Your task to perform on an android device: Open Google Chrome and open the bookmarks view Image 0: 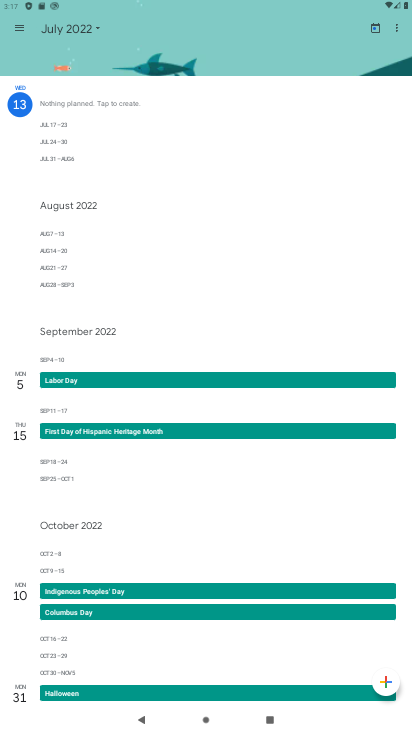
Step 0: press home button
Your task to perform on an android device: Open Google Chrome and open the bookmarks view Image 1: 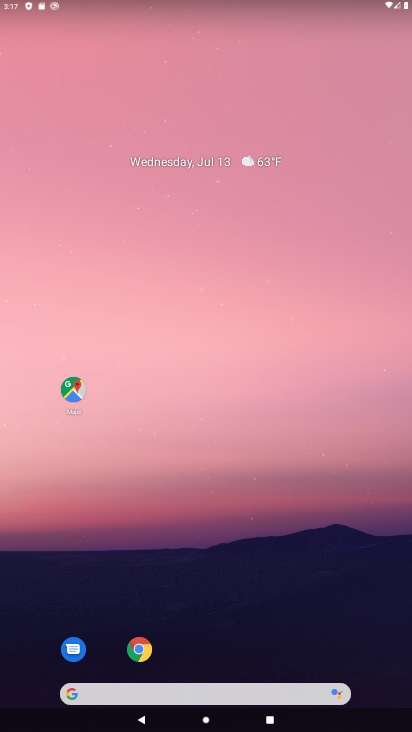
Step 1: click (143, 647)
Your task to perform on an android device: Open Google Chrome and open the bookmarks view Image 2: 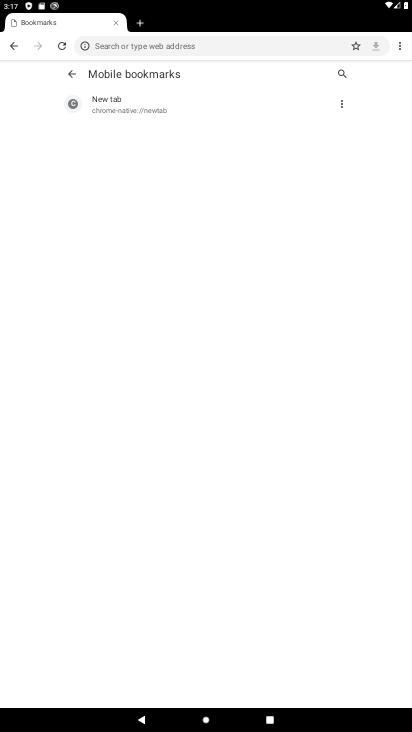
Step 2: click (397, 45)
Your task to perform on an android device: Open Google Chrome and open the bookmarks view Image 3: 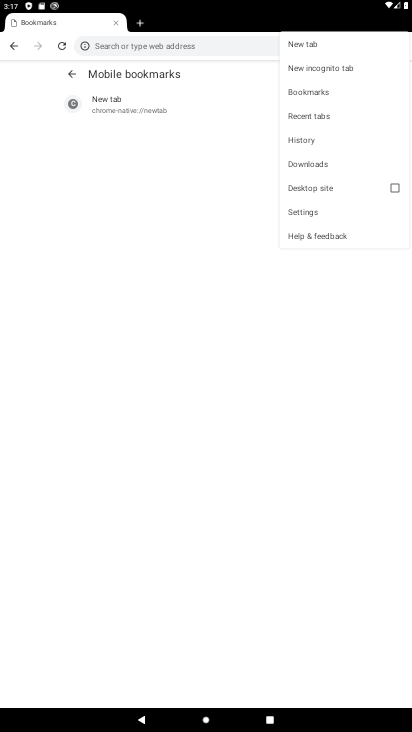
Step 3: click (332, 92)
Your task to perform on an android device: Open Google Chrome and open the bookmarks view Image 4: 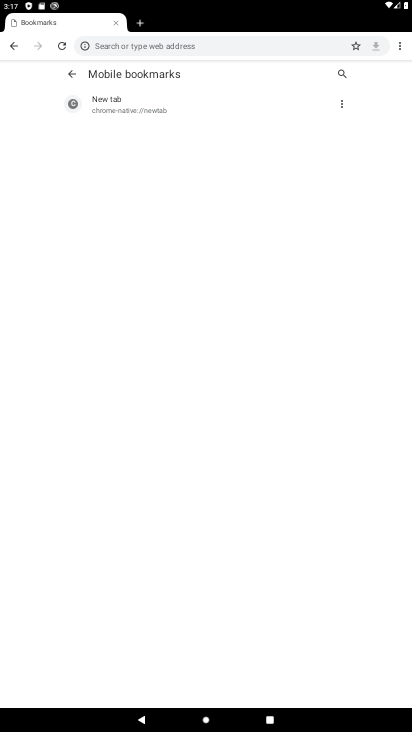
Step 4: task complete